Your task to perform on an android device: empty trash in the gmail app Image 0: 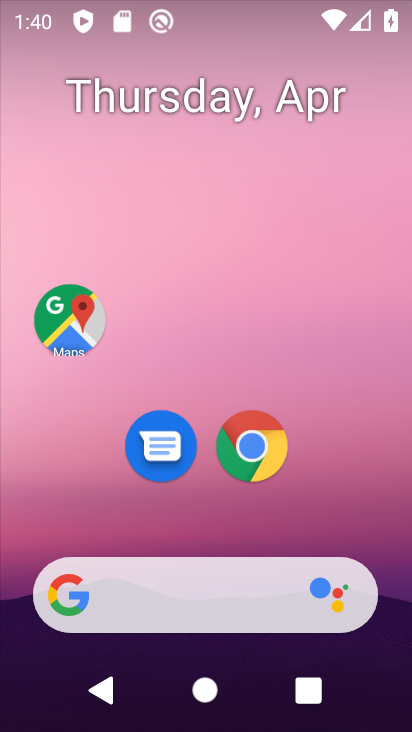
Step 0: drag from (291, 538) to (347, 143)
Your task to perform on an android device: empty trash in the gmail app Image 1: 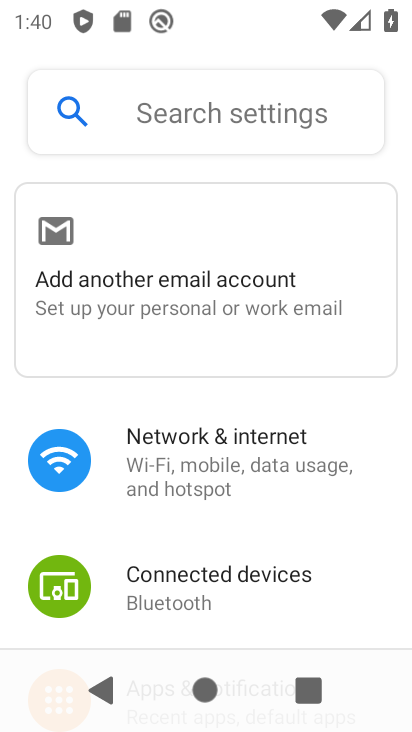
Step 1: press home button
Your task to perform on an android device: empty trash in the gmail app Image 2: 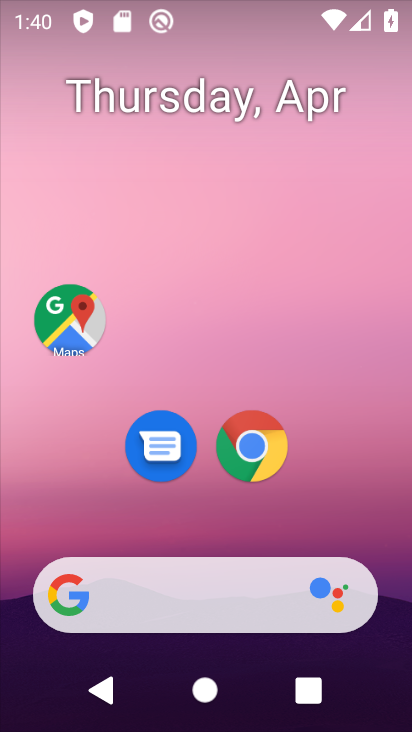
Step 2: click (282, 469)
Your task to perform on an android device: empty trash in the gmail app Image 3: 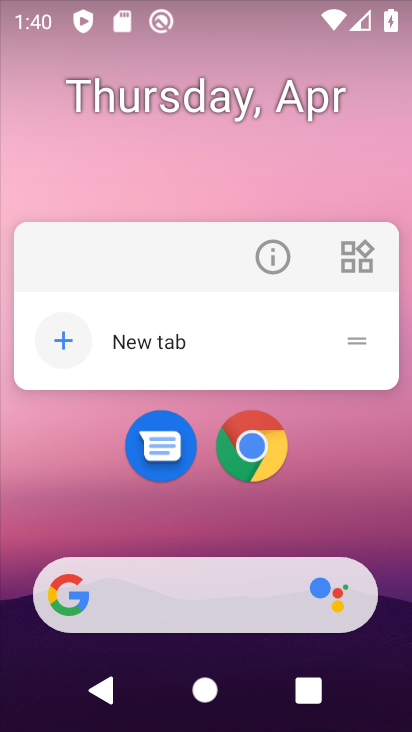
Step 3: click (249, 458)
Your task to perform on an android device: empty trash in the gmail app Image 4: 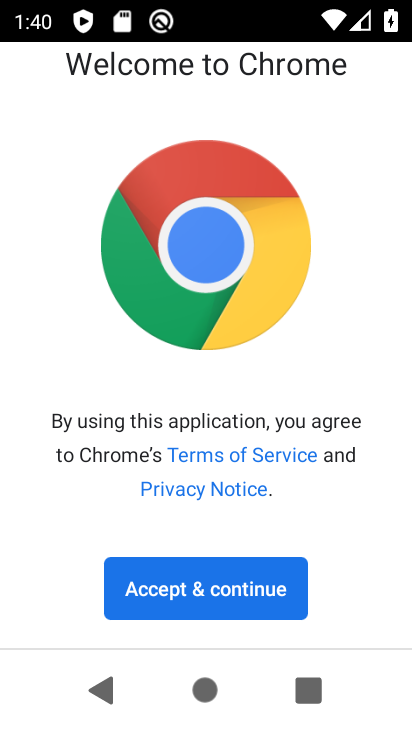
Step 4: click (230, 575)
Your task to perform on an android device: empty trash in the gmail app Image 5: 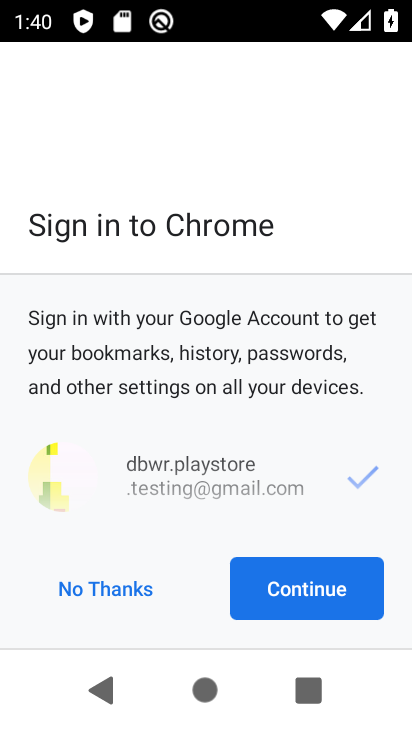
Step 5: click (249, 589)
Your task to perform on an android device: empty trash in the gmail app Image 6: 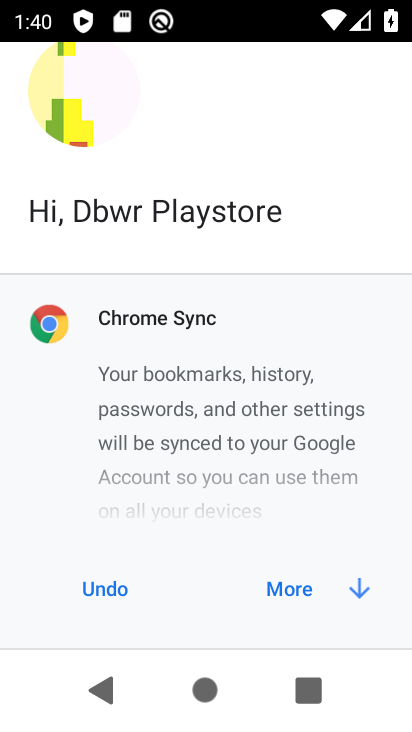
Step 6: click (272, 578)
Your task to perform on an android device: empty trash in the gmail app Image 7: 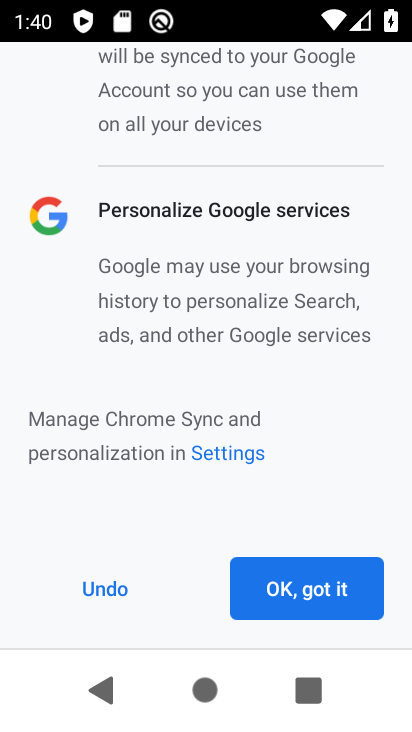
Step 7: click (300, 594)
Your task to perform on an android device: empty trash in the gmail app Image 8: 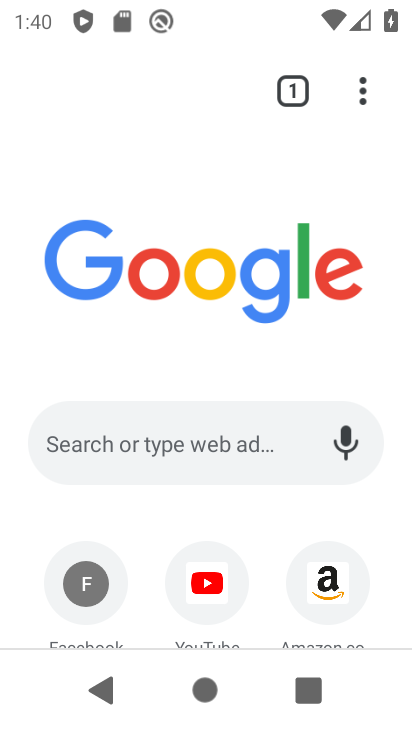
Step 8: drag from (255, 562) to (239, 288)
Your task to perform on an android device: empty trash in the gmail app Image 9: 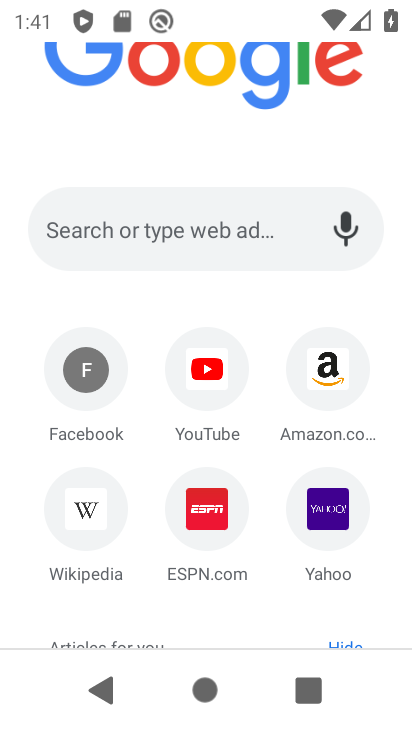
Step 9: press home button
Your task to perform on an android device: empty trash in the gmail app Image 10: 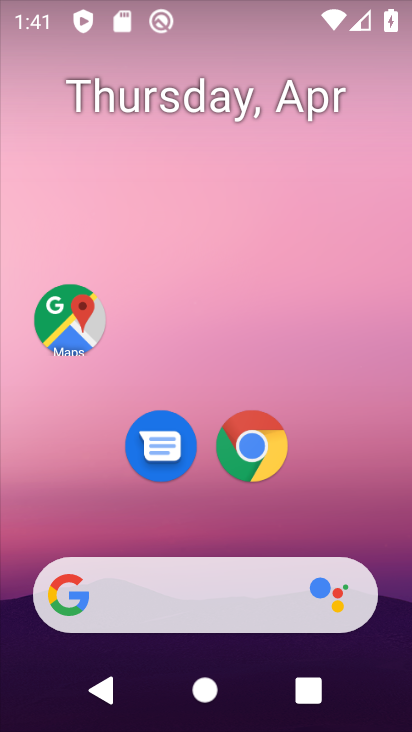
Step 10: drag from (305, 517) to (339, 189)
Your task to perform on an android device: empty trash in the gmail app Image 11: 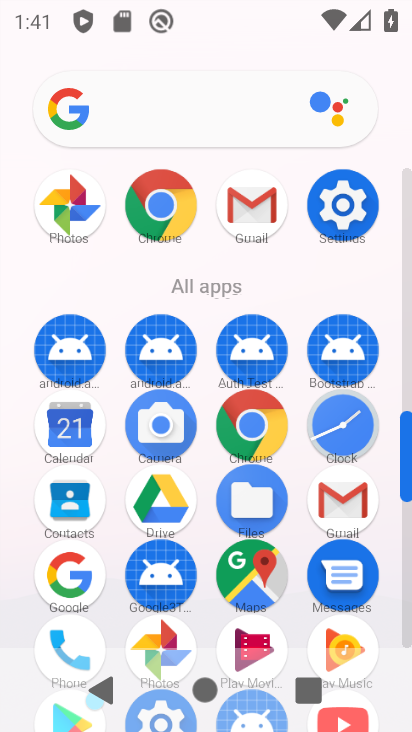
Step 11: click (291, 162)
Your task to perform on an android device: empty trash in the gmail app Image 12: 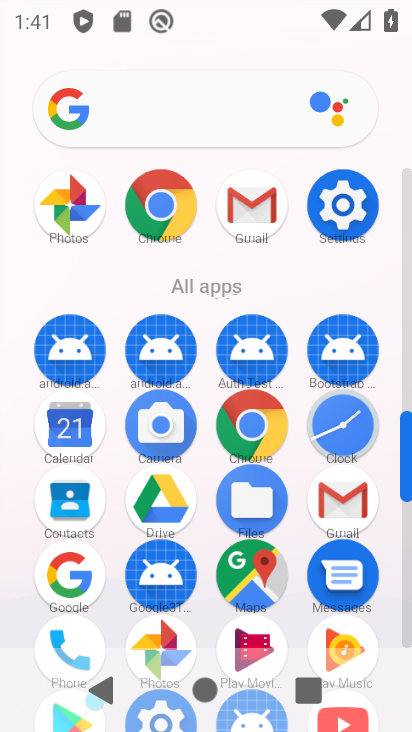
Step 12: click (253, 206)
Your task to perform on an android device: empty trash in the gmail app Image 13: 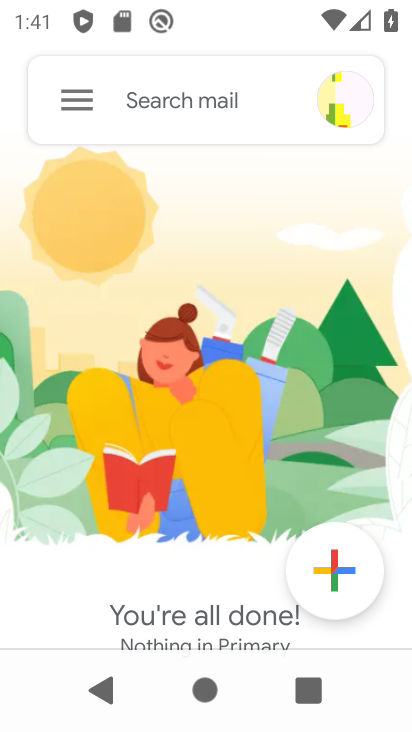
Step 13: drag from (233, 553) to (288, 295)
Your task to perform on an android device: empty trash in the gmail app Image 14: 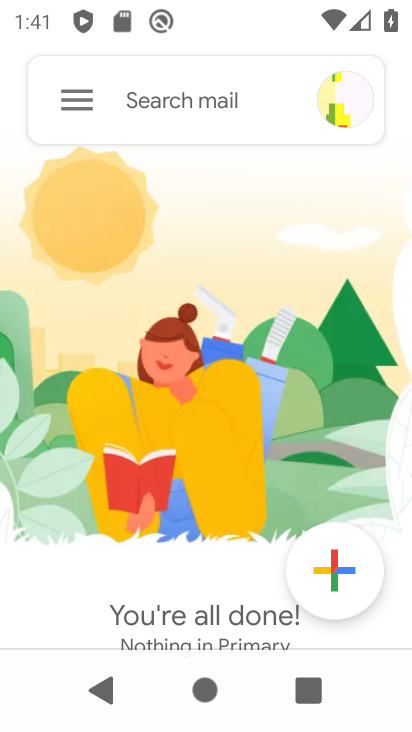
Step 14: click (84, 104)
Your task to perform on an android device: empty trash in the gmail app Image 15: 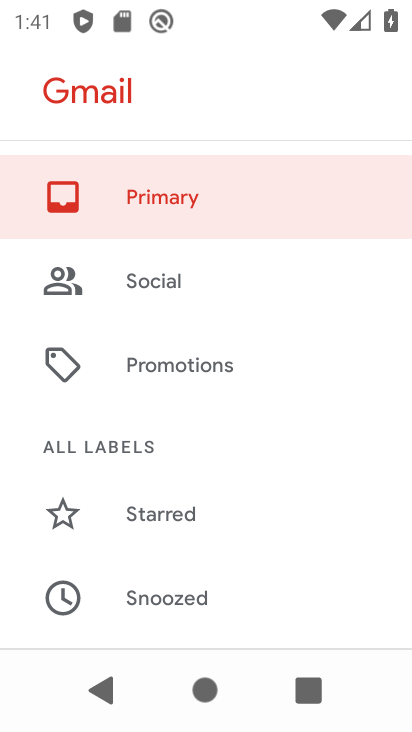
Step 15: drag from (173, 599) to (249, 291)
Your task to perform on an android device: empty trash in the gmail app Image 16: 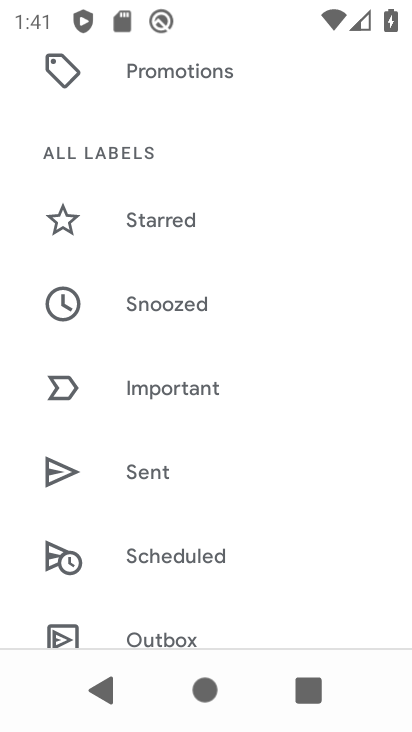
Step 16: drag from (218, 522) to (307, 229)
Your task to perform on an android device: empty trash in the gmail app Image 17: 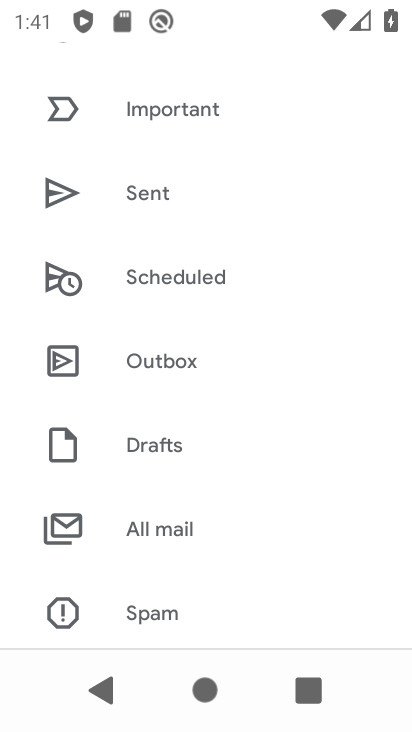
Step 17: click (186, 538)
Your task to perform on an android device: empty trash in the gmail app Image 18: 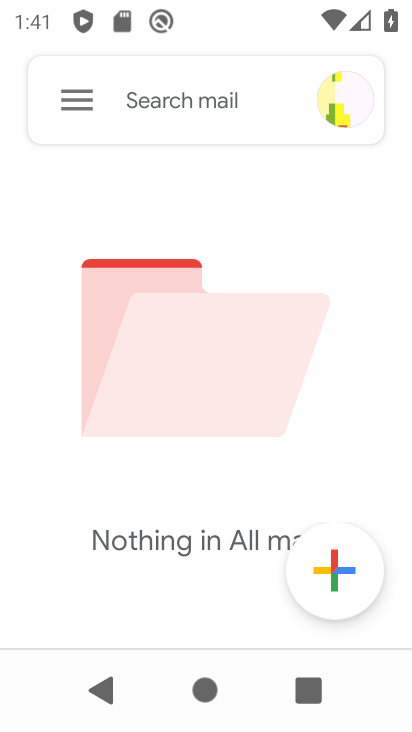
Step 18: task complete